Your task to perform on an android device: turn on showing notifications on the lock screen Image 0: 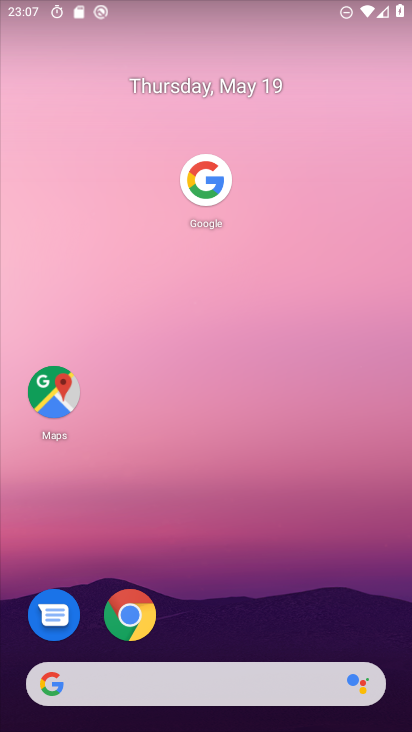
Step 0: drag from (235, 613) to (292, 78)
Your task to perform on an android device: turn on showing notifications on the lock screen Image 1: 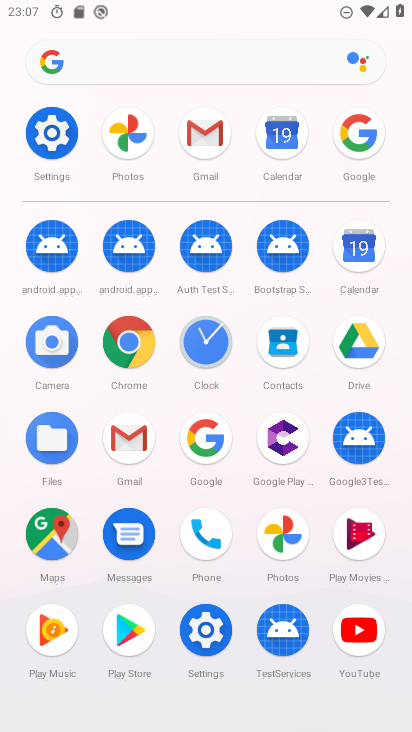
Step 1: click (52, 129)
Your task to perform on an android device: turn on showing notifications on the lock screen Image 2: 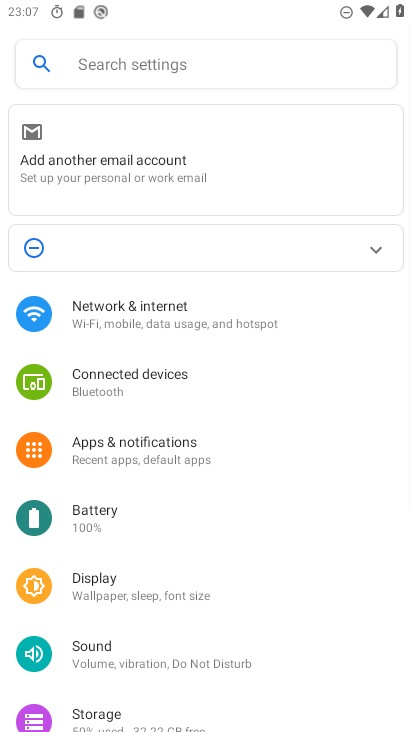
Step 2: click (171, 446)
Your task to perform on an android device: turn on showing notifications on the lock screen Image 3: 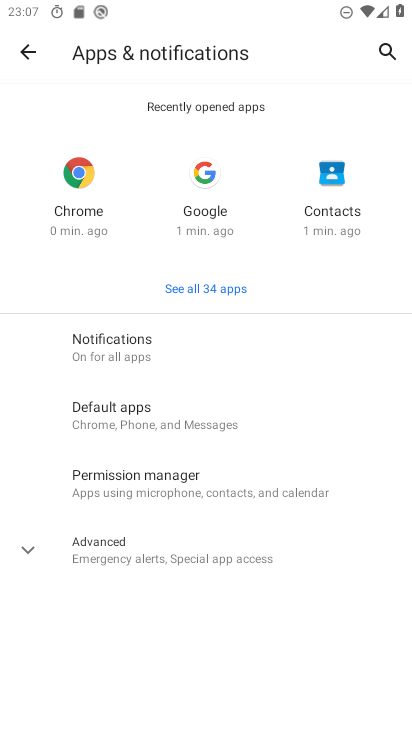
Step 3: click (138, 343)
Your task to perform on an android device: turn on showing notifications on the lock screen Image 4: 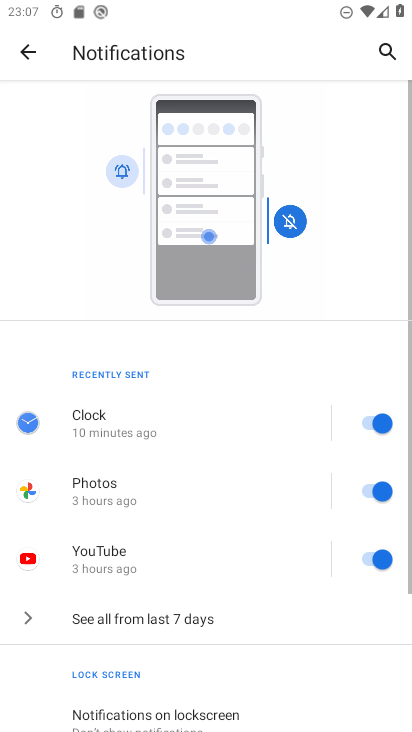
Step 4: drag from (205, 566) to (244, 255)
Your task to perform on an android device: turn on showing notifications on the lock screen Image 5: 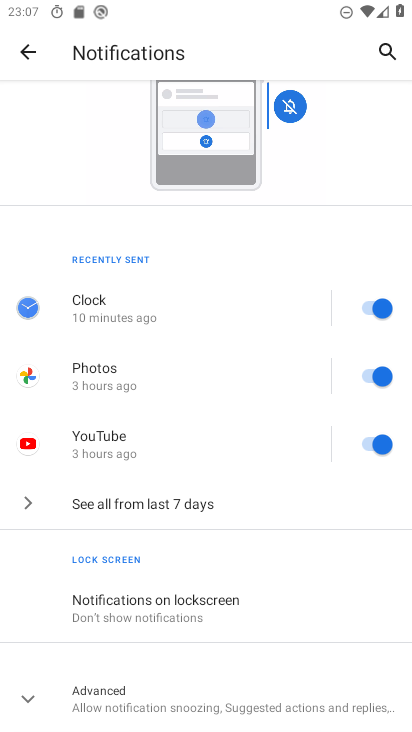
Step 5: click (177, 606)
Your task to perform on an android device: turn on showing notifications on the lock screen Image 6: 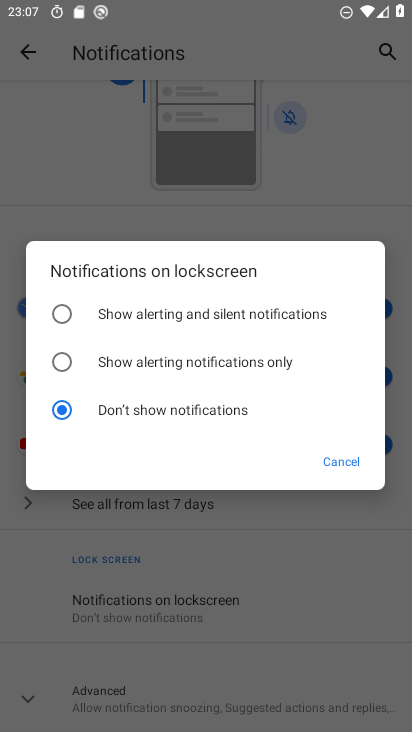
Step 6: click (65, 316)
Your task to perform on an android device: turn on showing notifications on the lock screen Image 7: 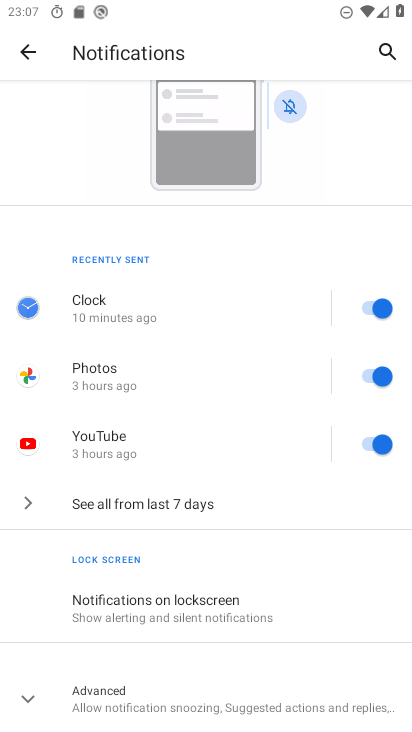
Step 7: task complete